Your task to perform on an android device: Go to display settings Image 0: 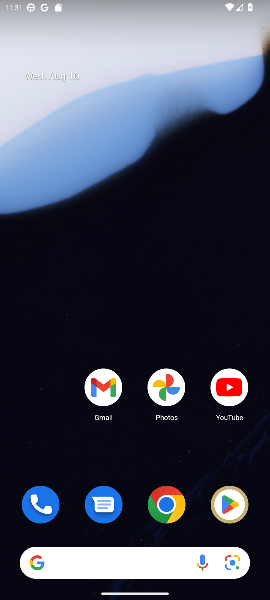
Step 0: press home button
Your task to perform on an android device: Go to display settings Image 1: 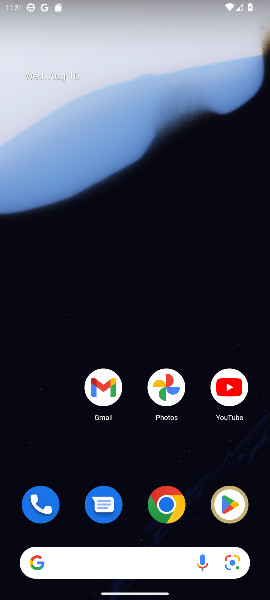
Step 1: drag from (50, 445) to (135, 28)
Your task to perform on an android device: Go to display settings Image 2: 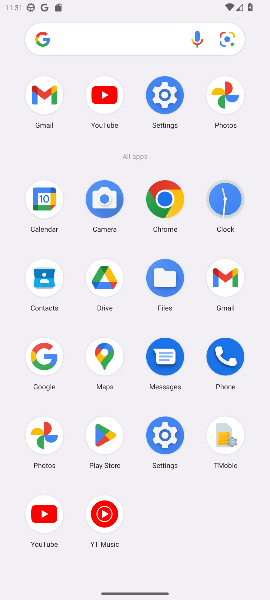
Step 2: click (168, 100)
Your task to perform on an android device: Go to display settings Image 3: 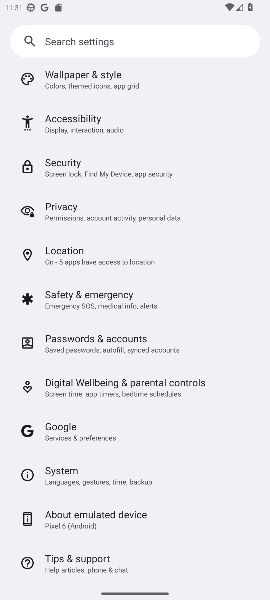
Step 3: drag from (151, 100) to (158, 243)
Your task to perform on an android device: Go to display settings Image 4: 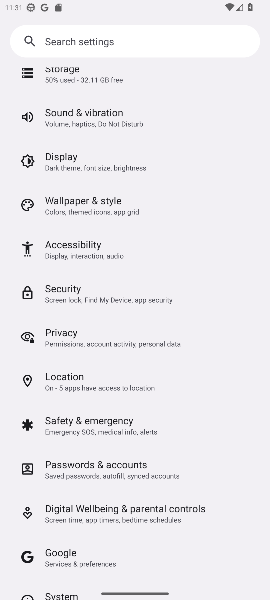
Step 4: click (81, 159)
Your task to perform on an android device: Go to display settings Image 5: 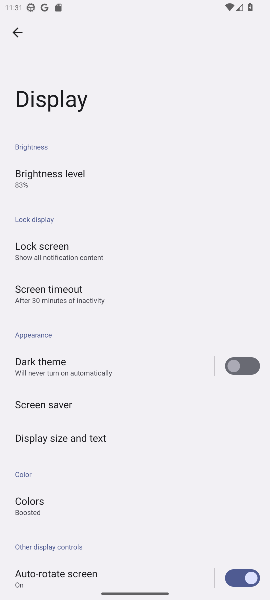
Step 5: task complete